Your task to perform on an android device: Show the shopping cart on target.com. Image 0: 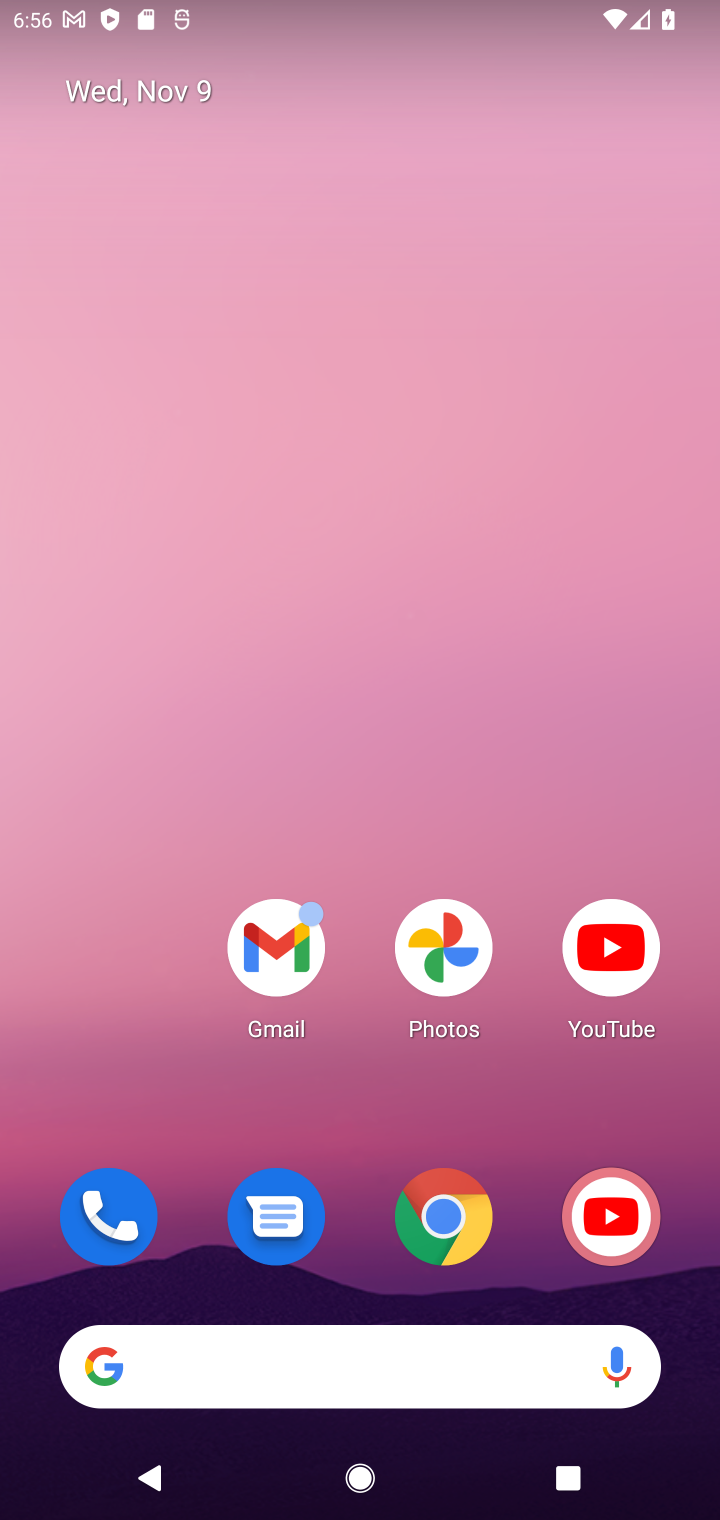
Step 0: drag from (391, 826) to (435, 58)
Your task to perform on an android device: Show the shopping cart on target.com. Image 1: 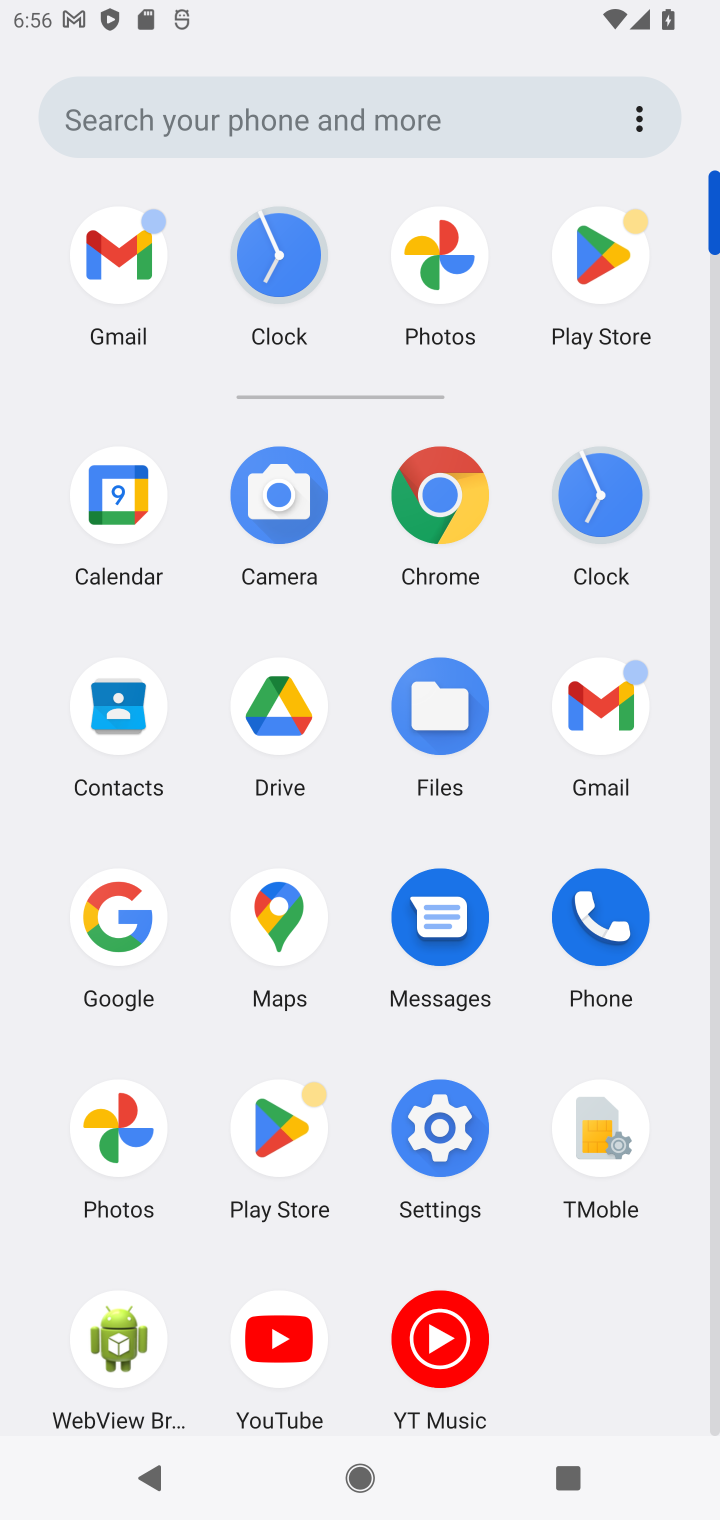
Step 1: click (431, 502)
Your task to perform on an android device: Show the shopping cart on target.com. Image 2: 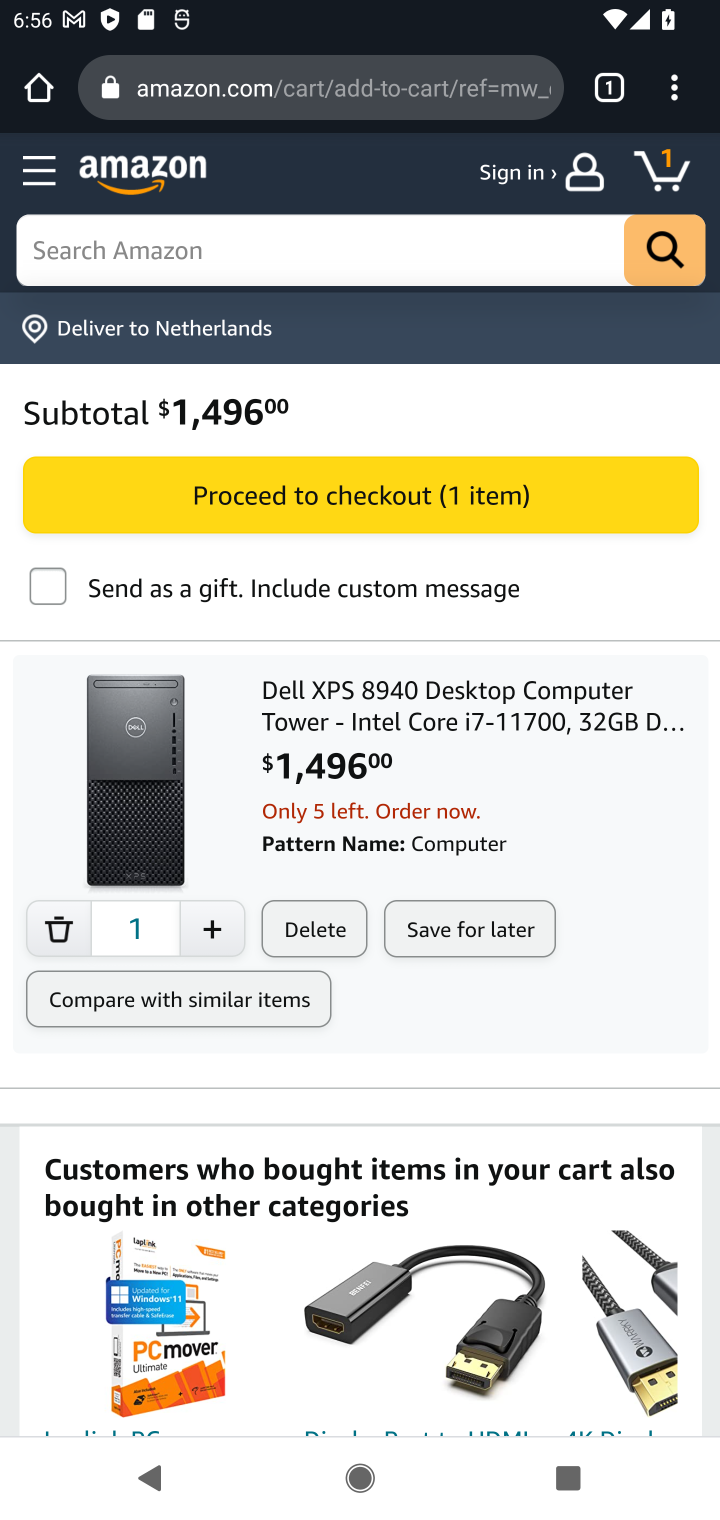
Step 2: click (415, 99)
Your task to perform on an android device: Show the shopping cart on target.com. Image 3: 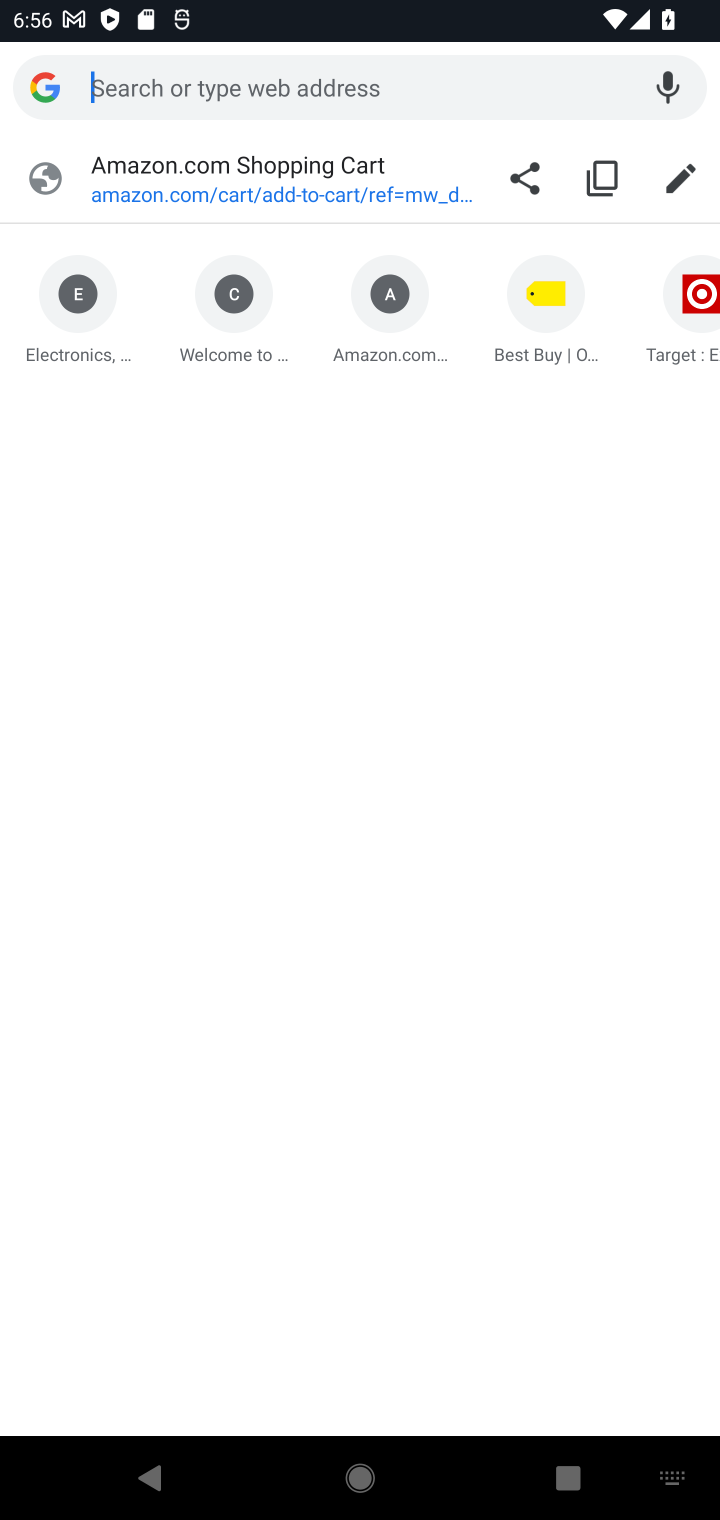
Step 3: type "target.com"
Your task to perform on an android device: Show the shopping cart on target.com. Image 4: 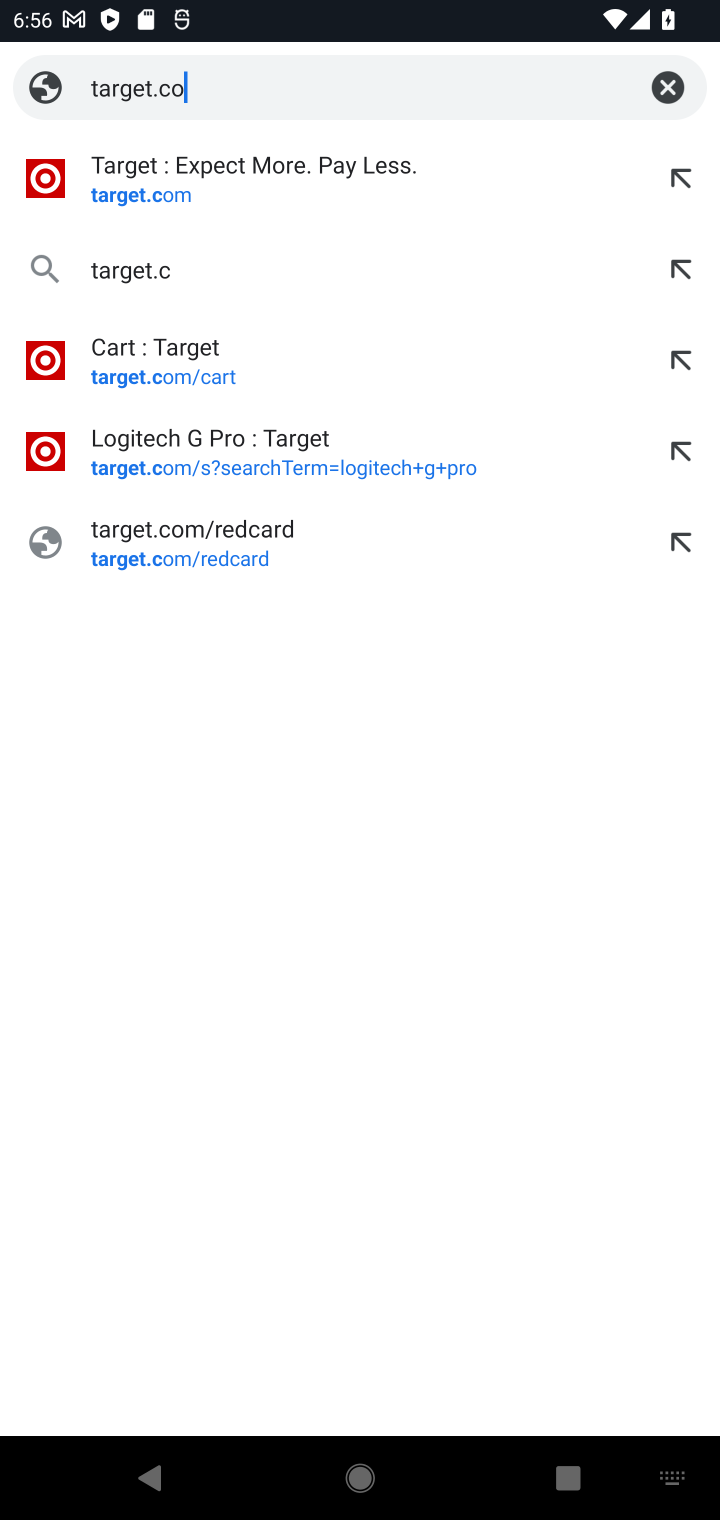
Step 4: press enter
Your task to perform on an android device: Show the shopping cart on target.com. Image 5: 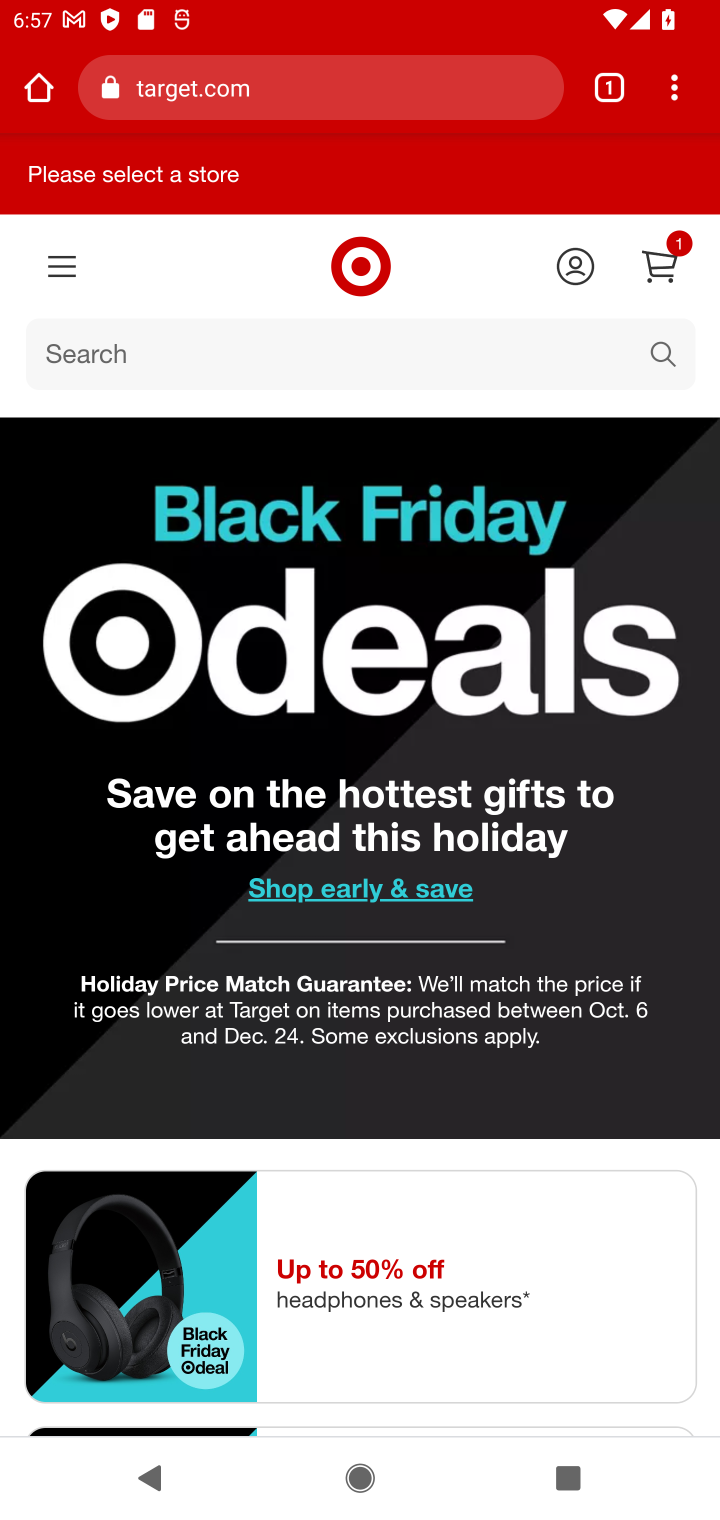
Step 5: click (675, 273)
Your task to perform on an android device: Show the shopping cart on target.com. Image 6: 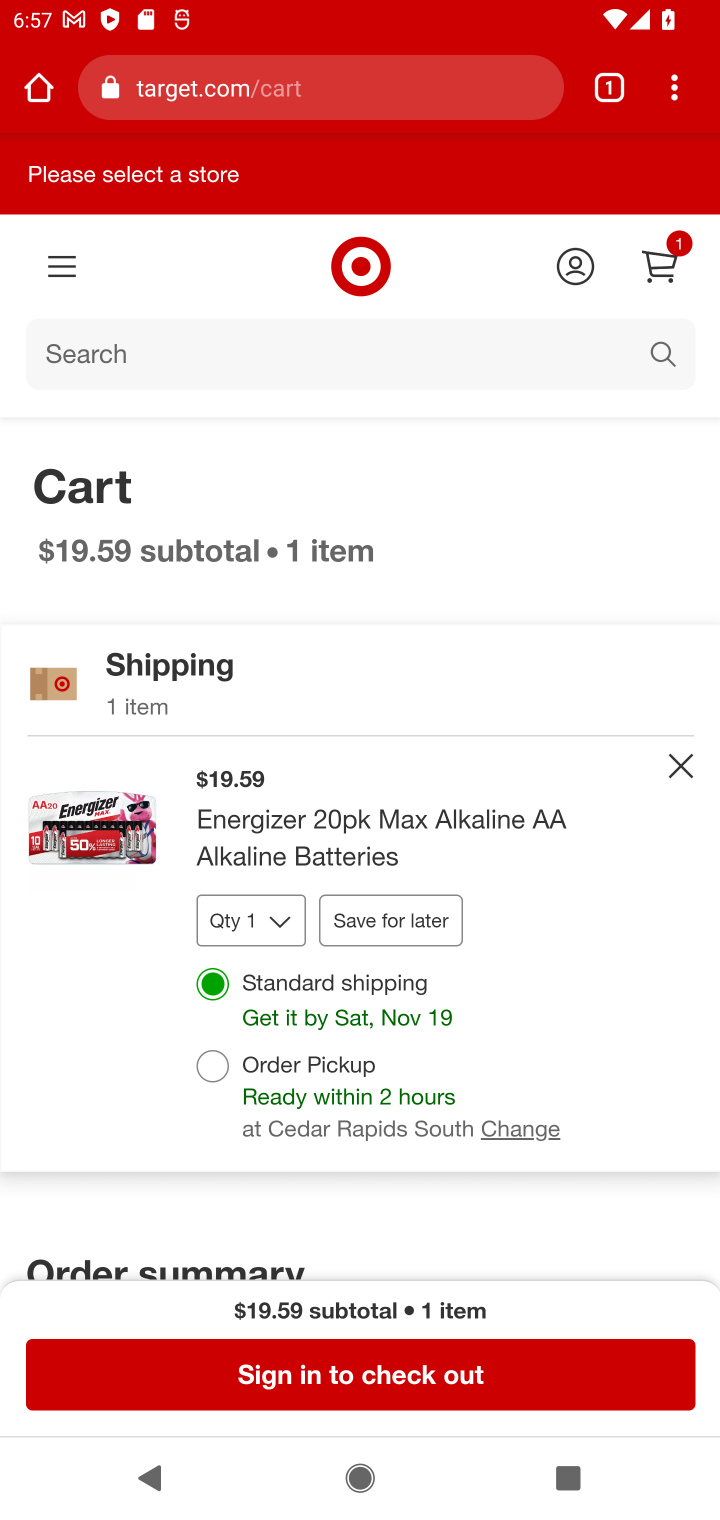
Step 6: task complete